Your task to perform on an android device: toggle data saver in the chrome app Image 0: 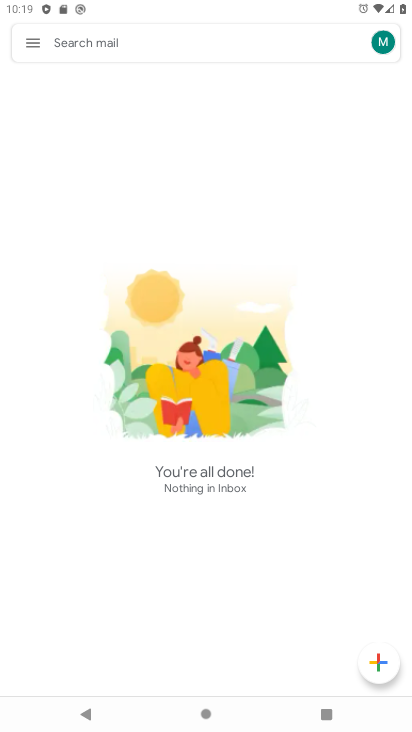
Step 0: press home button
Your task to perform on an android device: toggle data saver in the chrome app Image 1: 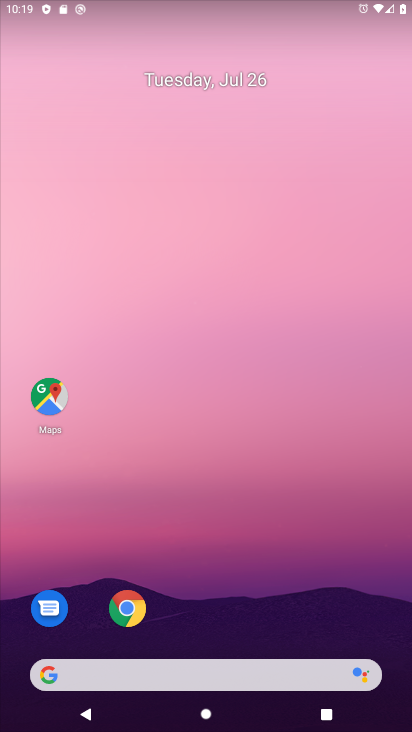
Step 1: click (125, 610)
Your task to perform on an android device: toggle data saver in the chrome app Image 2: 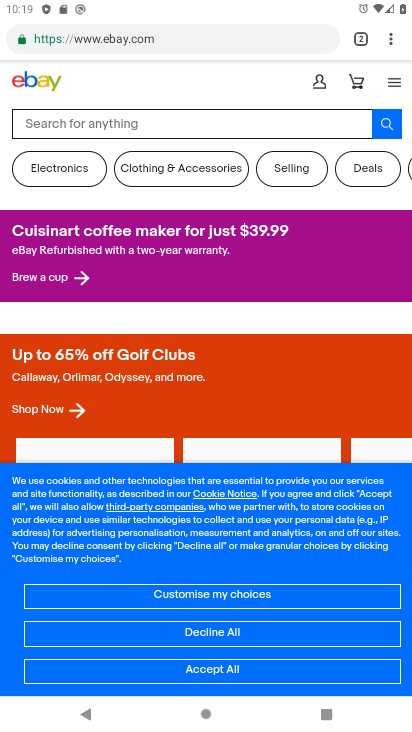
Step 2: click (388, 44)
Your task to perform on an android device: toggle data saver in the chrome app Image 3: 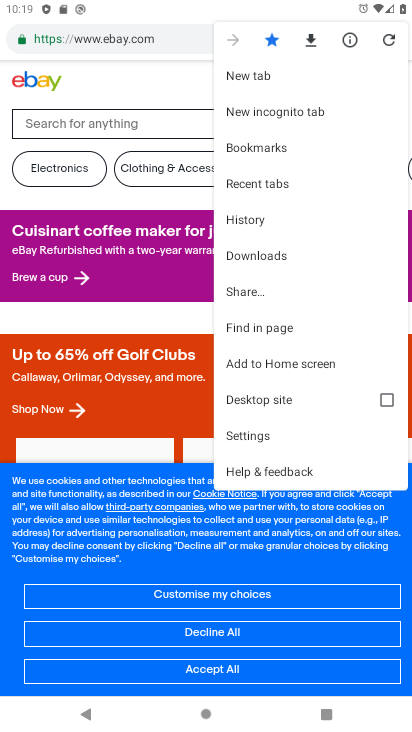
Step 3: click (246, 438)
Your task to perform on an android device: toggle data saver in the chrome app Image 4: 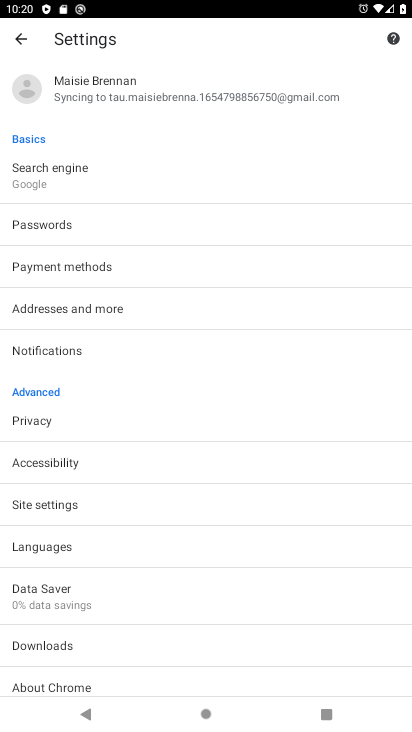
Step 4: click (41, 591)
Your task to perform on an android device: toggle data saver in the chrome app Image 5: 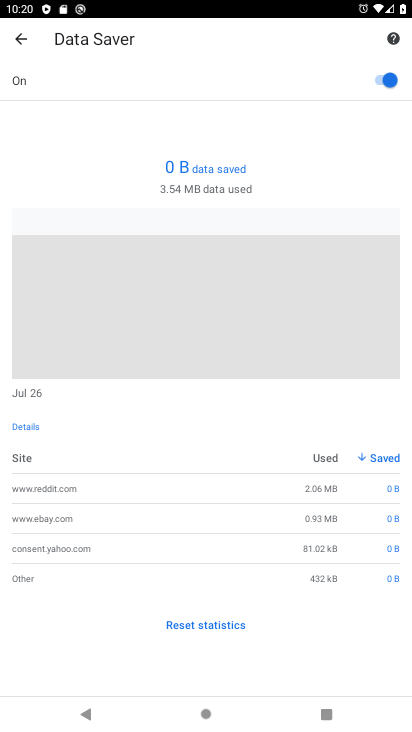
Step 5: click (379, 77)
Your task to perform on an android device: toggle data saver in the chrome app Image 6: 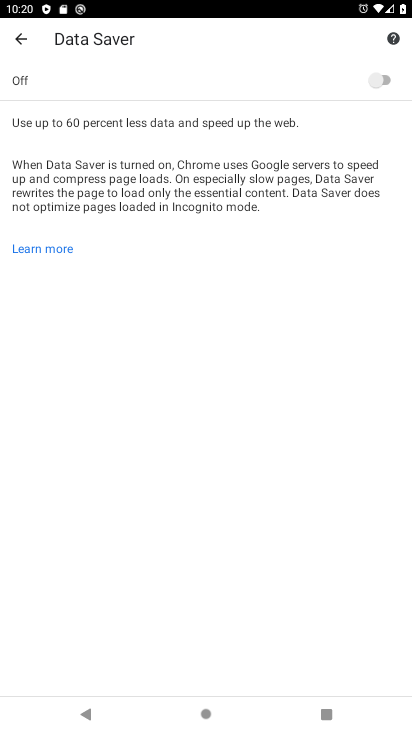
Step 6: task complete